Your task to perform on an android device: Search for the new nike air max shoes on Nike. Image 0: 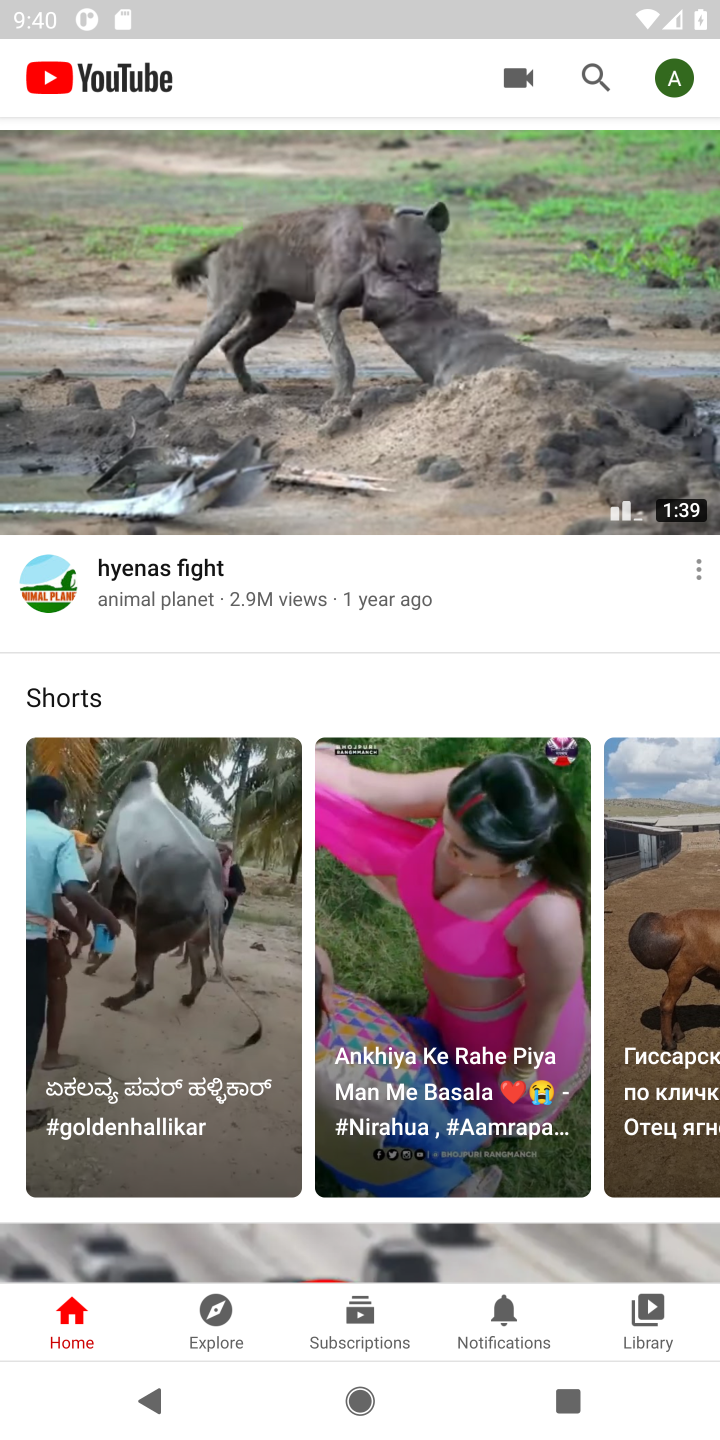
Step 0: task complete